Your task to perform on an android device: change the clock display to show seconds Image 0: 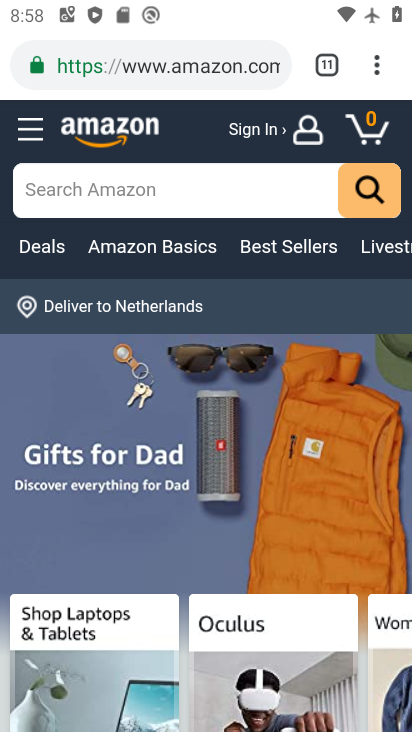
Step 0: press home button
Your task to perform on an android device: change the clock display to show seconds Image 1: 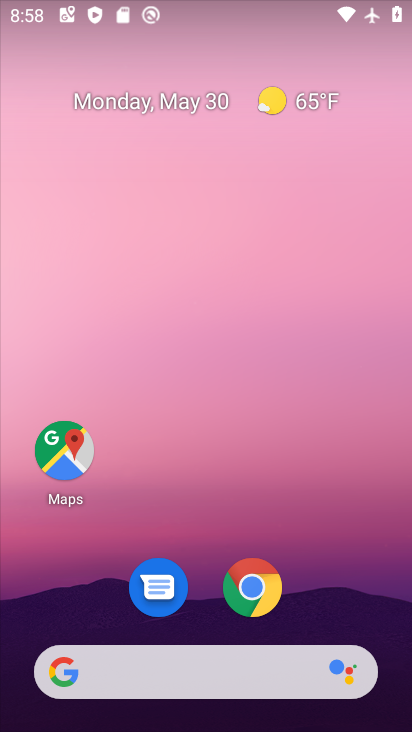
Step 1: drag from (189, 672) to (376, 90)
Your task to perform on an android device: change the clock display to show seconds Image 2: 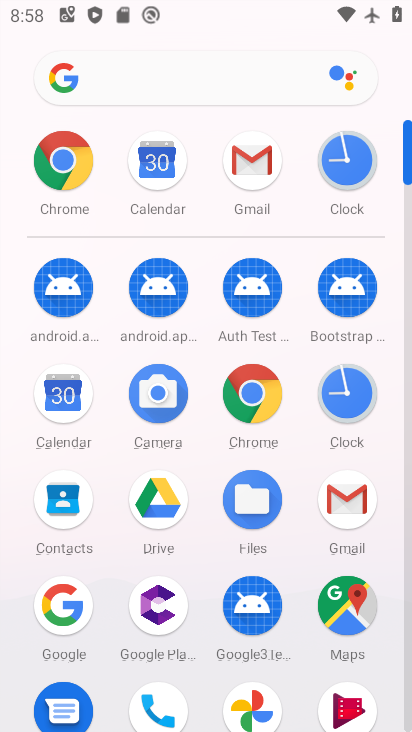
Step 2: click (332, 166)
Your task to perform on an android device: change the clock display to show seconds Image 3: 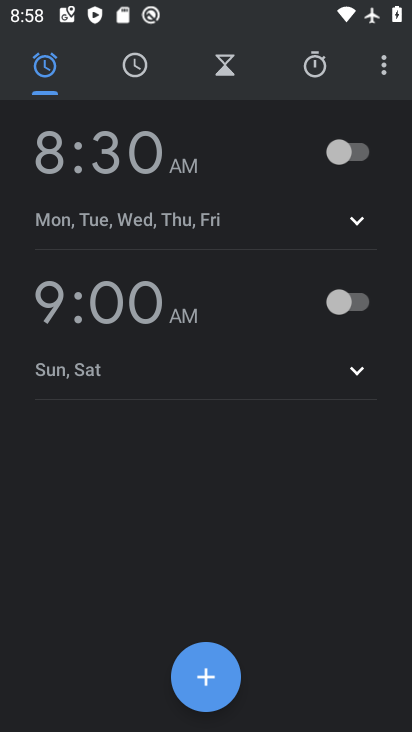
Step 3: click (381, 69)
Your task to perform on an android device: change the clock display to show seconds Image 4: 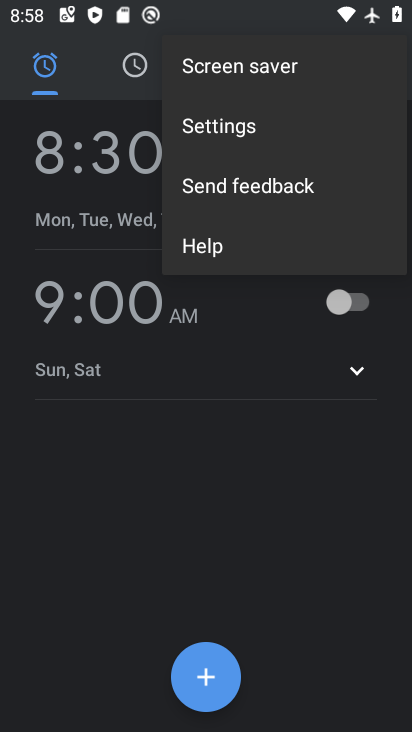
Step 4: click (213, 125)
Your task to perform on an android device: change the clock display to show seconds Image 5: 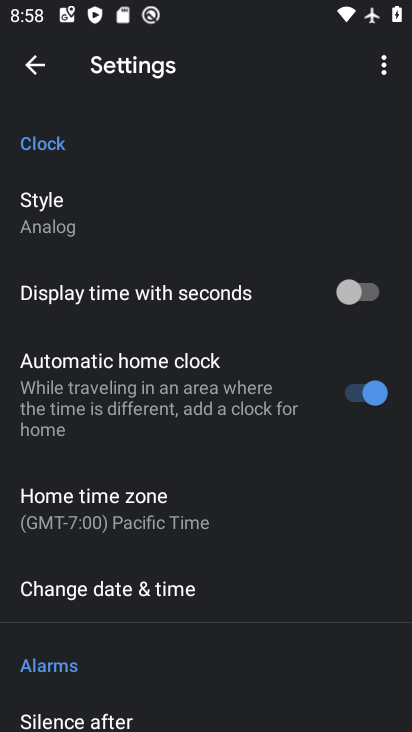
Step 5: click (370, 292)
Your task to perform on an android device: change the clock display to show seconds Image 6: 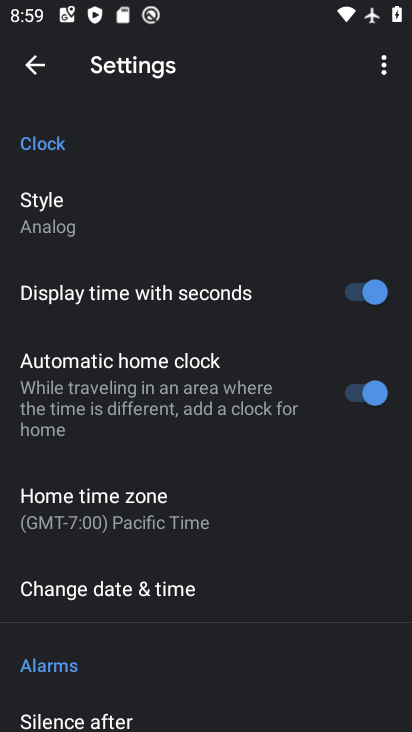
Step 6: task complete